Your task to perform on an android device: turn pop-ups off in chrome Image 0: 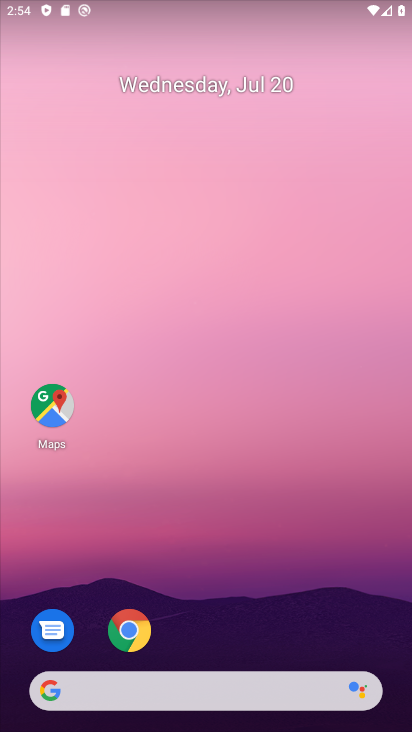
Step 0: press home button
Your task to perform on an android device: turn pop-ups off in chrome Image 1: 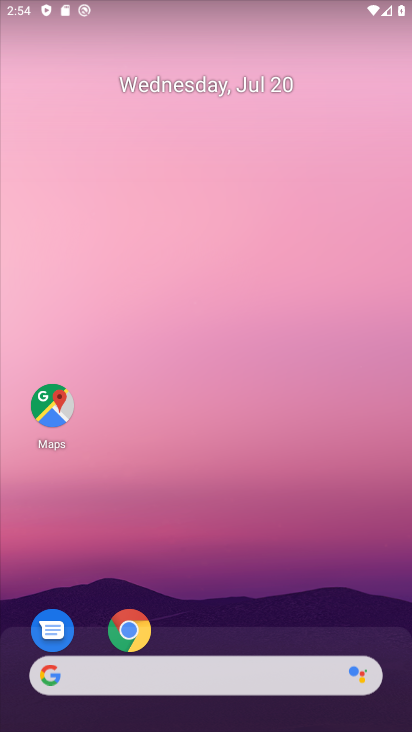
Step 1: drag from (228, 644) to (188, 0)
Your task to perform on an android device: turn pop-ups off in chrome Image 2: 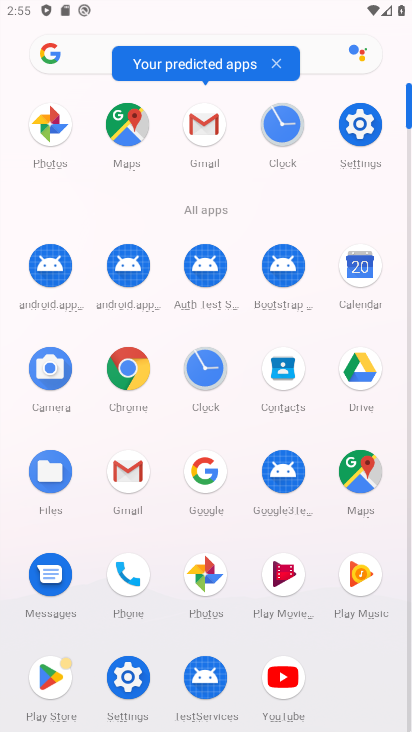
Step 2: click (128, 370)
Your task to perform on an android device: turn pop-ups off in chrome Image 3: 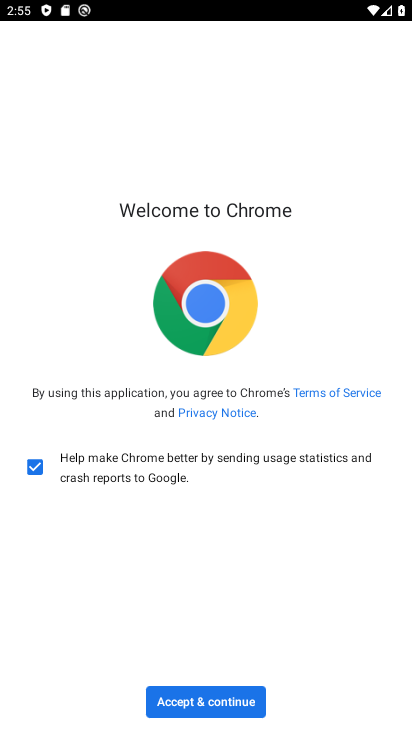
Step 3: click (197, 713)
Your task to perform on an android device: turn pop-ups off in chrome Image 4: 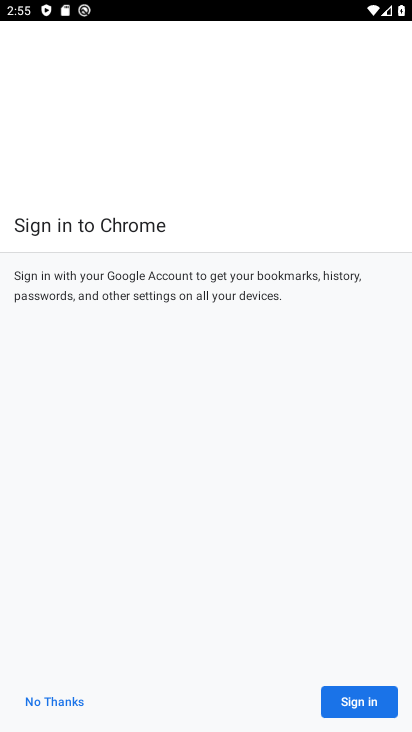
Step 4: click (368, 704)
Your task to perform on an android device: turn pop-ups off in chrome Image 5: 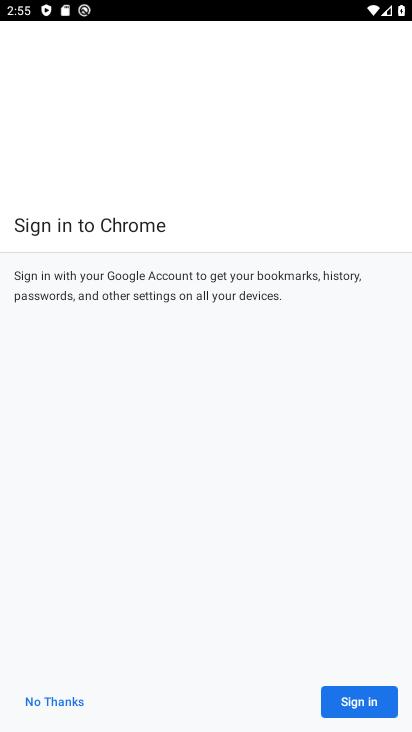
Step 5: click (350, 708)
Your task to perform on an android device: turn pop-ups off in chrome Image 6: 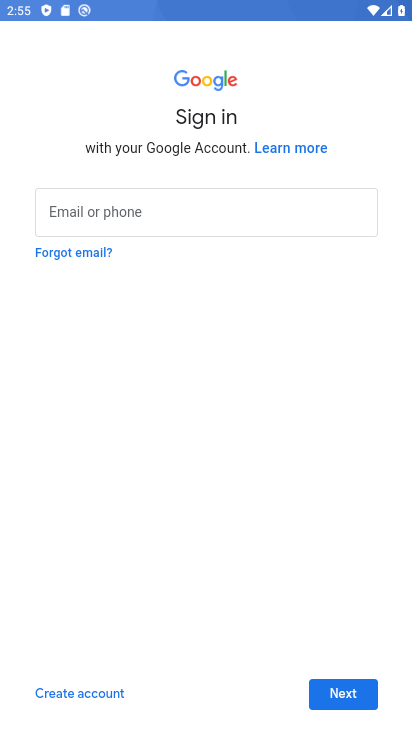
Step 6: click (346, 705)
Your task to perform on an android device: turn pop-ups off in chrome Image 7: 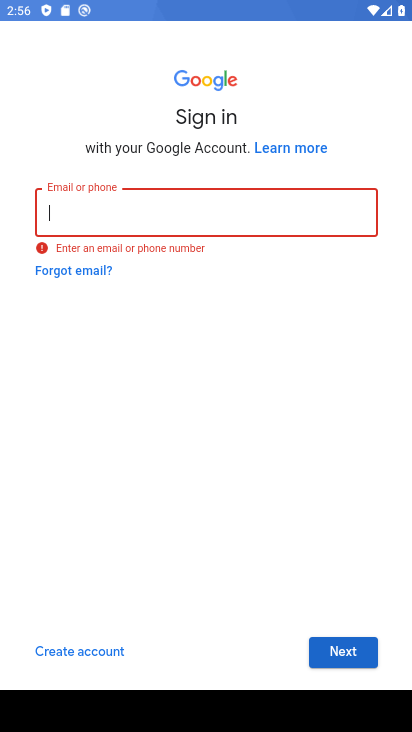
Step 7: task complete